Your task to perform on an android device: Open Youtube and go to the subscriptions tab Image 0: 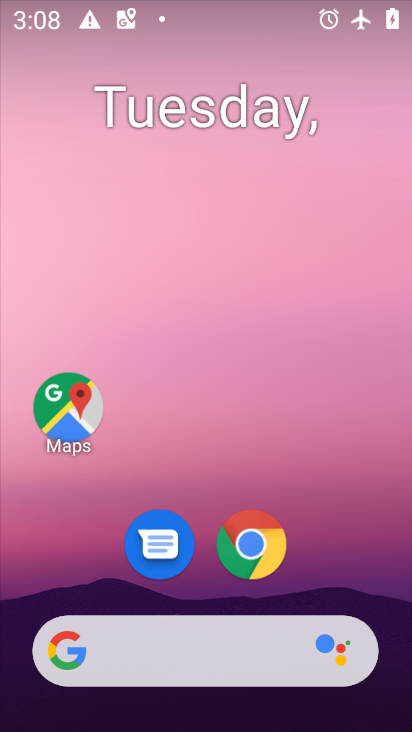
Step 0: drag from (327, 527) to (265, 6)
Your task to perform on an android device: Open Youtube and go to the subscriptions tab Image 1: 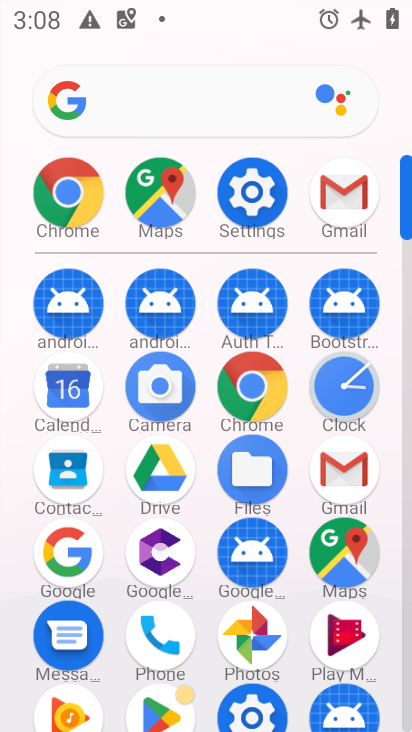
Step 1: drag from (287, 602) to (277, 226)
Your task to perform on an android device: Open Youtube and go to the subscriptions tab Image 2: 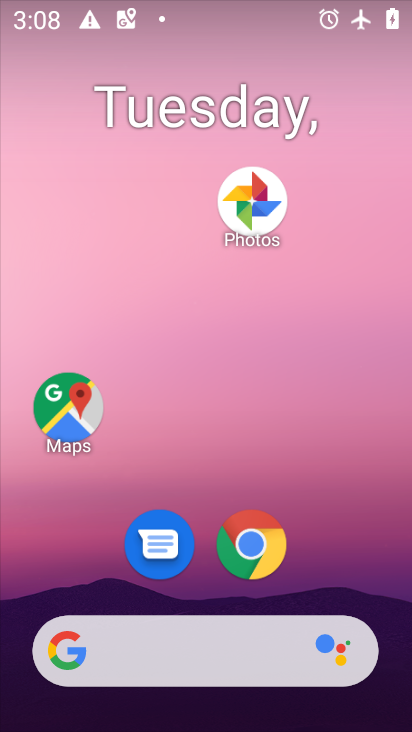
Step 2: drag from (298, 453) to (312, 7)
Your task to perform on an android device: Open Youtube and go to the subscriptions tab Image 3: 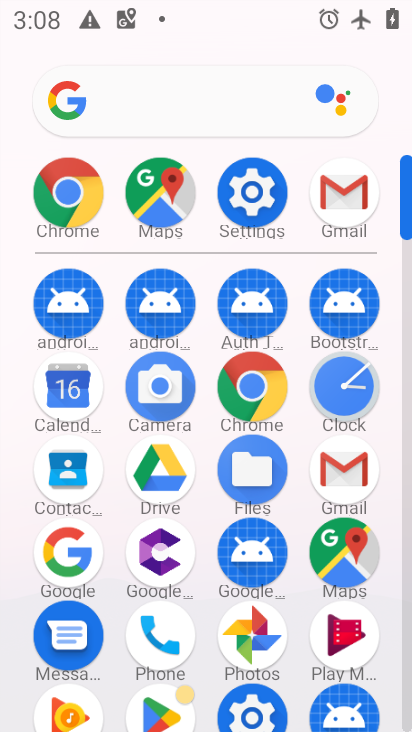
Step 3: drag from (299, 510) to (296, 101)
Your task to perform on an android device: Open Youtube and go to the subscriptions tab Image 4: 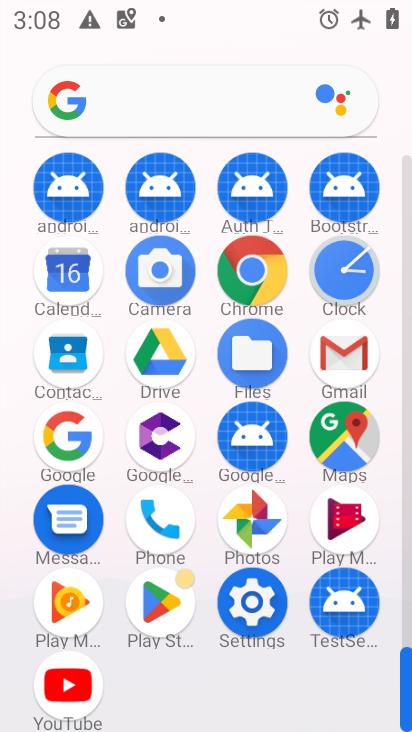
Step 4: click (55, 683)
Your task to perform on an android device: Open Youtube and go to the subscriptions tab Image 5: 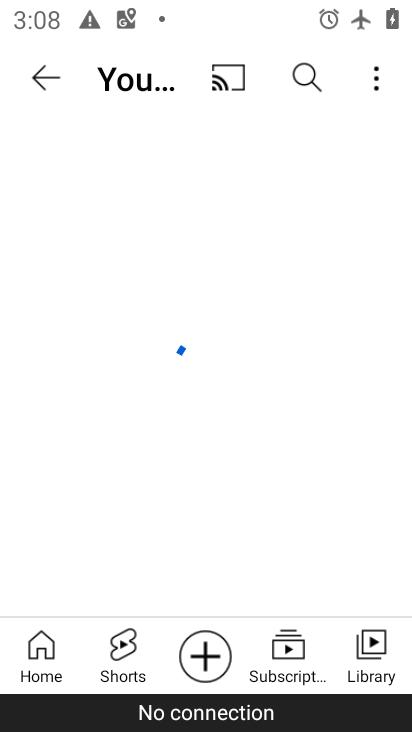
Step 5: press back button
Your task to perform on an android device: Open Youtube and go to the subscriptions tab Image 6: 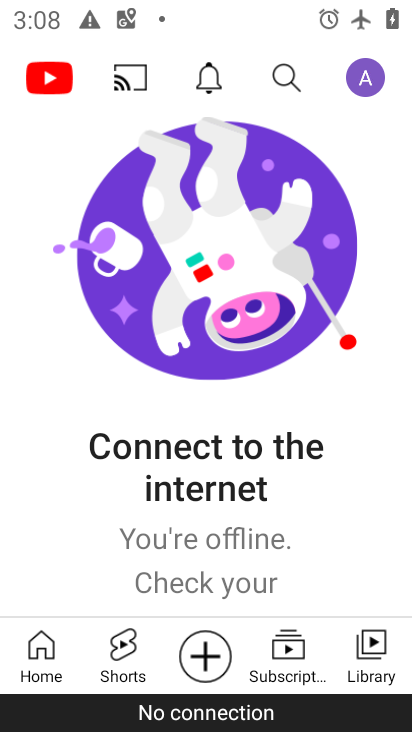
Step 6: click (380, 73)
Your task to perform on an android device: Open Youtube and go to the subscriptions tab Image 7: 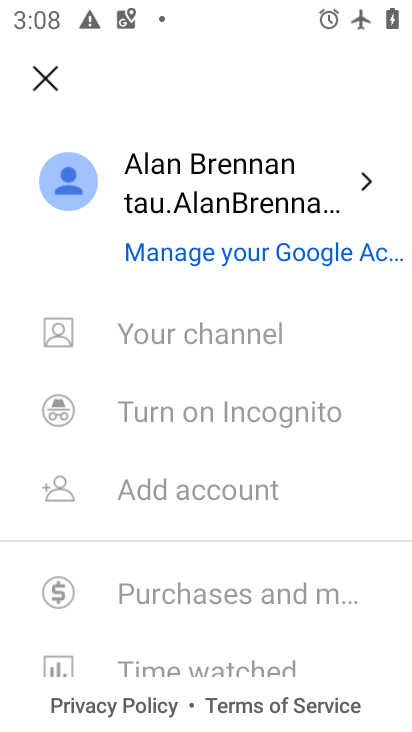
Step 7: click (205, 323)
Your task to perform on an android device: Open Youtube and go to the subscriptions tab Image 8: 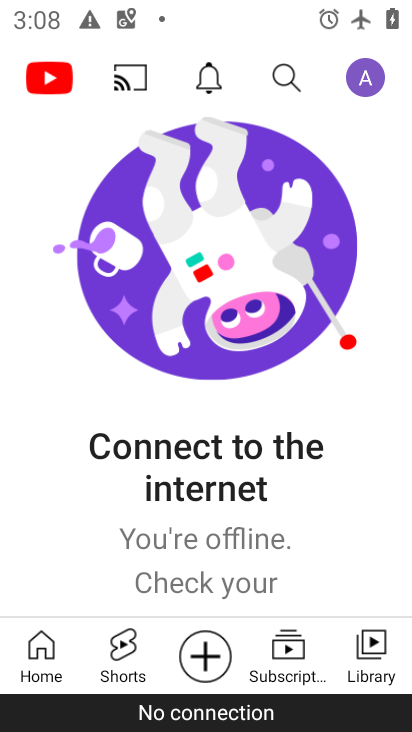
Step 8: task complete